Your task to perform on an android device: View the shopping cart on amazon.com. Add "acer predator" to the cart on amazon.com Image 0: 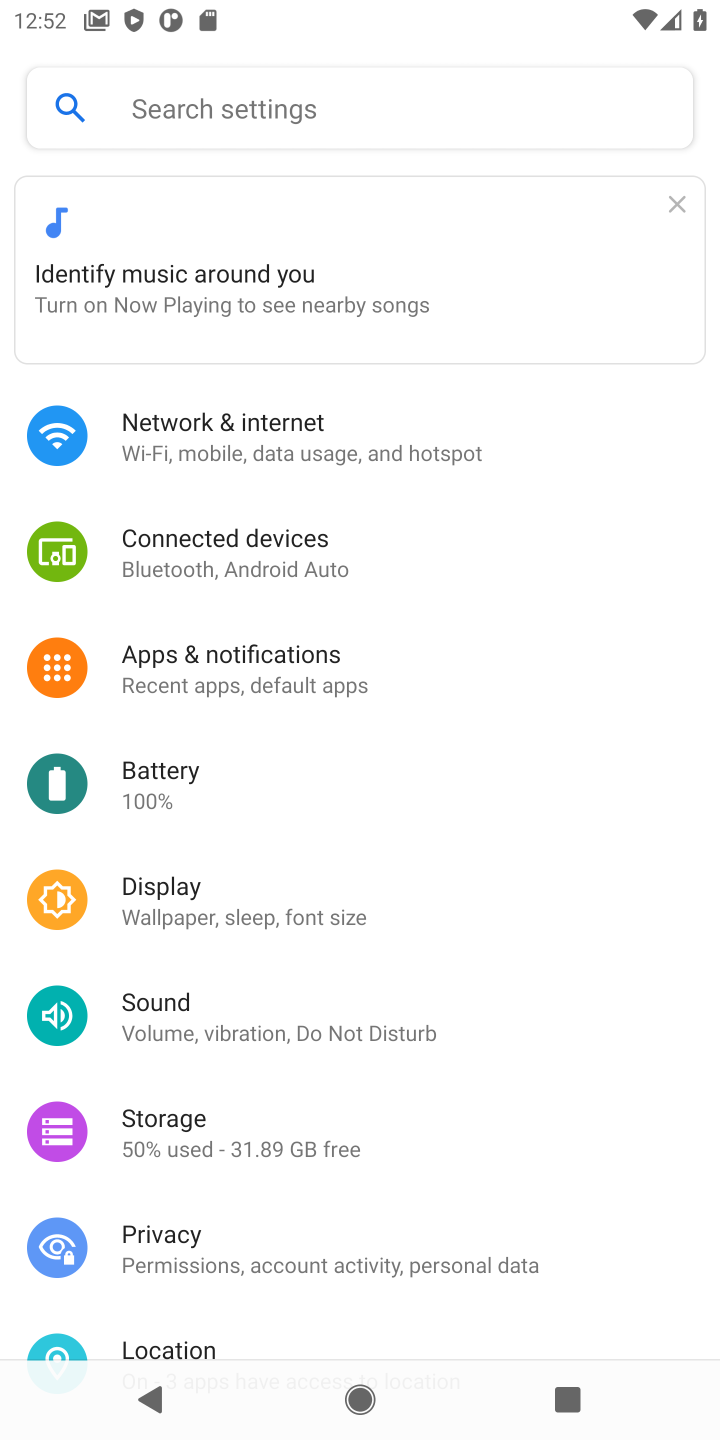
Step 0: press home button
Your task to perform on an android device: View the shopping cart on amazon.com. Add "acer predator" to the cart on amazon.com Image 1: 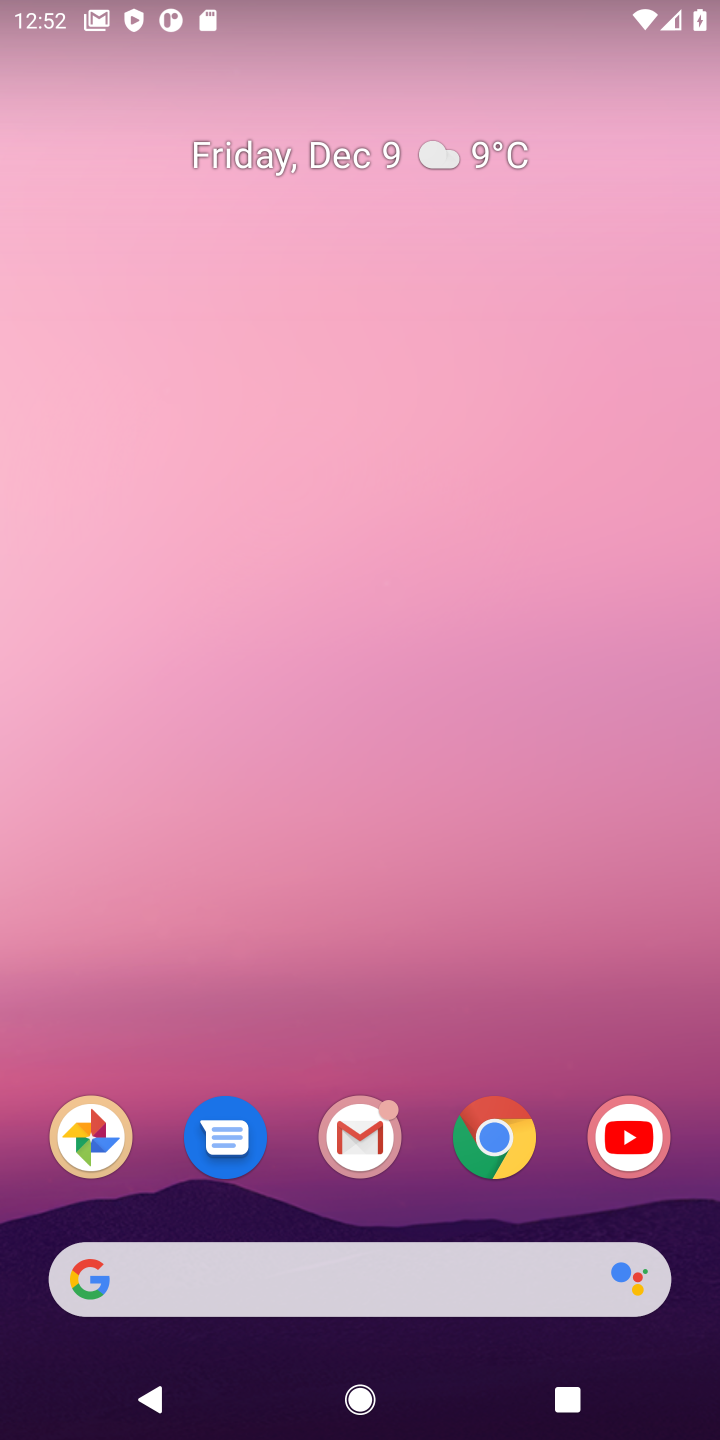
Step 1: click (445, 1274)
Your task to perform on an android device: View the shopping cart on amazon.com. Add "acer predator" to the cart on amazon.com Image 2: 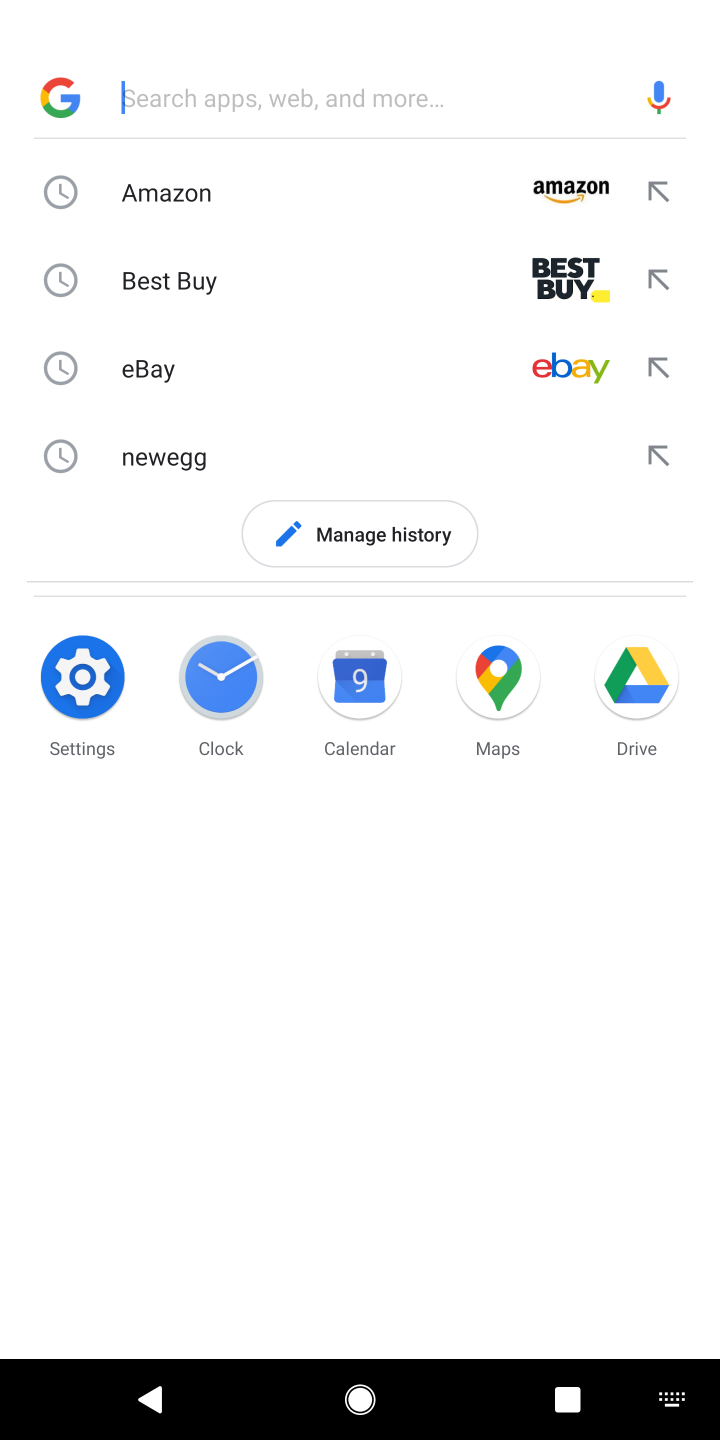
Step 2: type "amazon"
Your task to perform on an android device: View the shopping cart on amazon.com. Add "acer predator" to the cart on amazon.com Image 3: 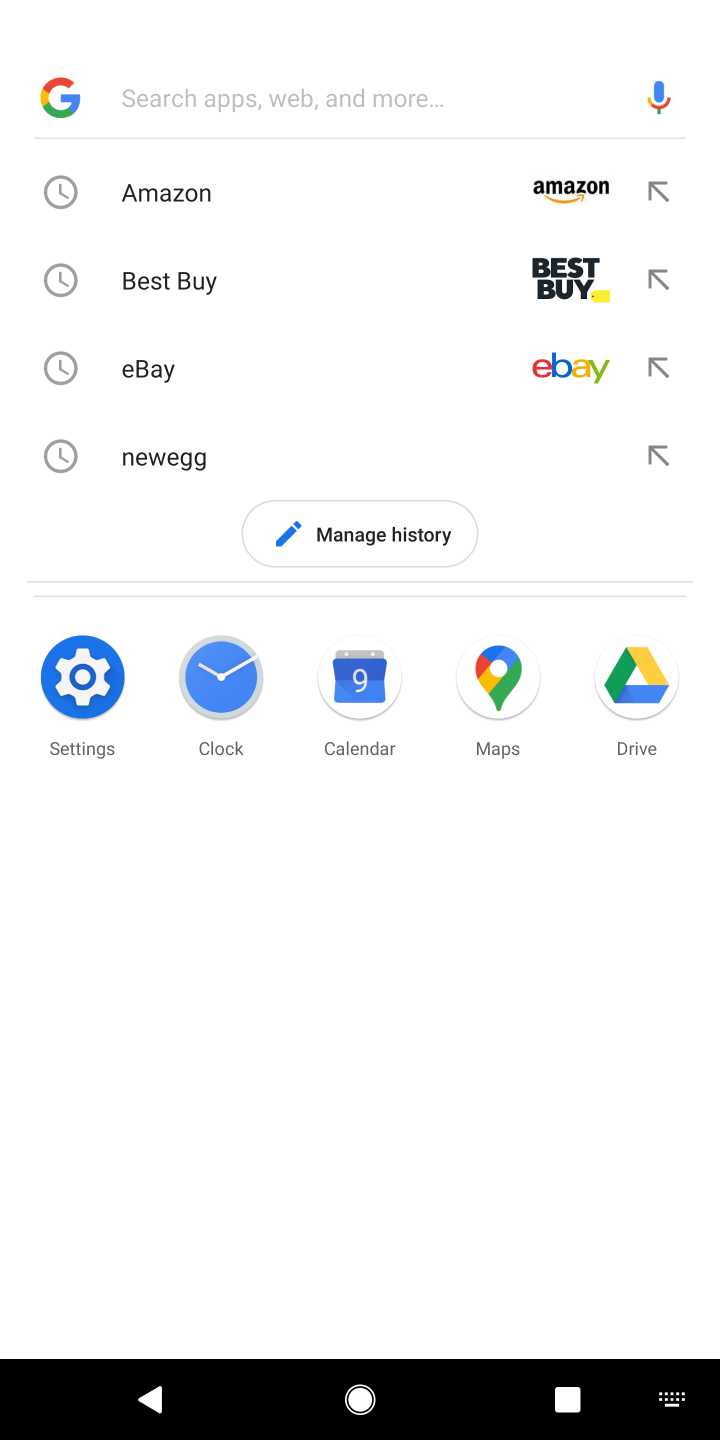
Step 3: click (286, 171)
Your task to perform on an android device: View the shopping cart on amazon.com. Add "acer predator" to the cart on amazon.com Image 4: 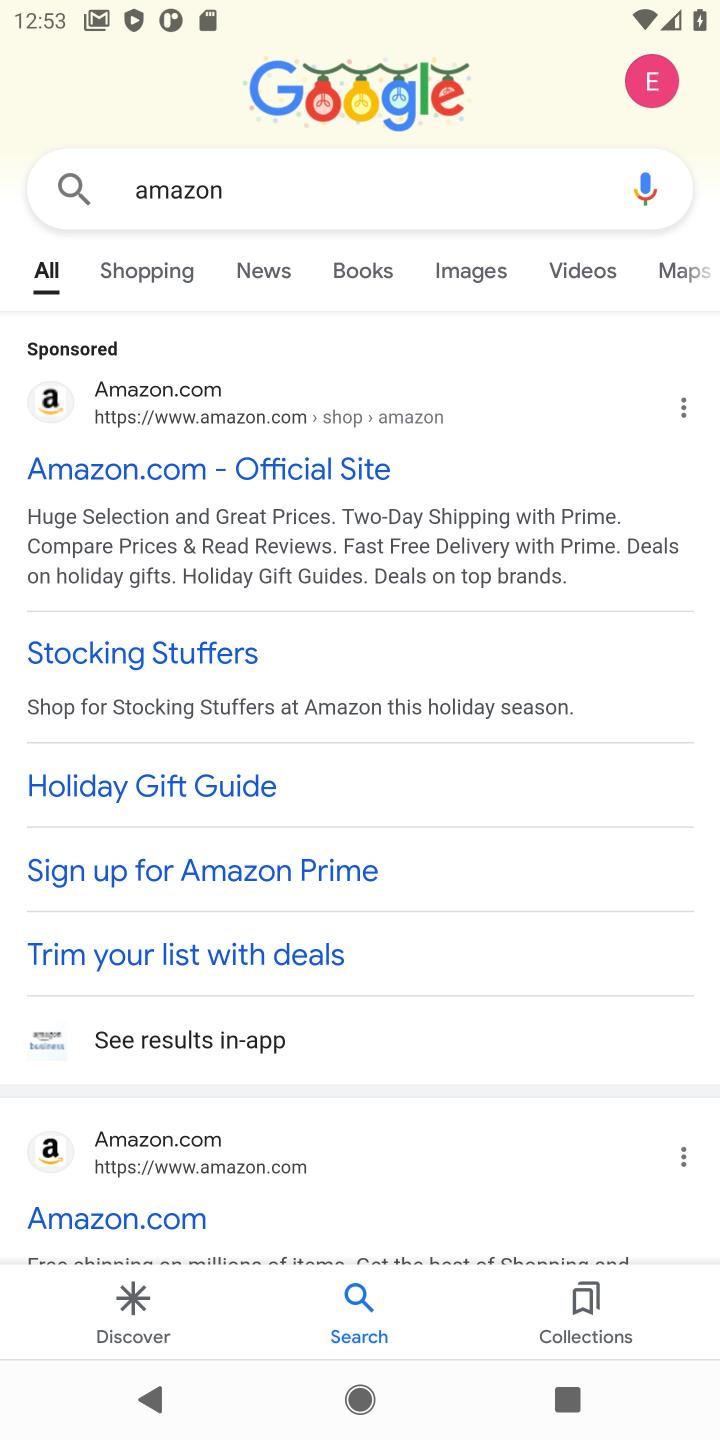
Step 4: click (53, 436)
Your task to perform on an android device: View the shopping cart on amazon.com. Add "acer predator" to the cart on amazon.com Image 5: 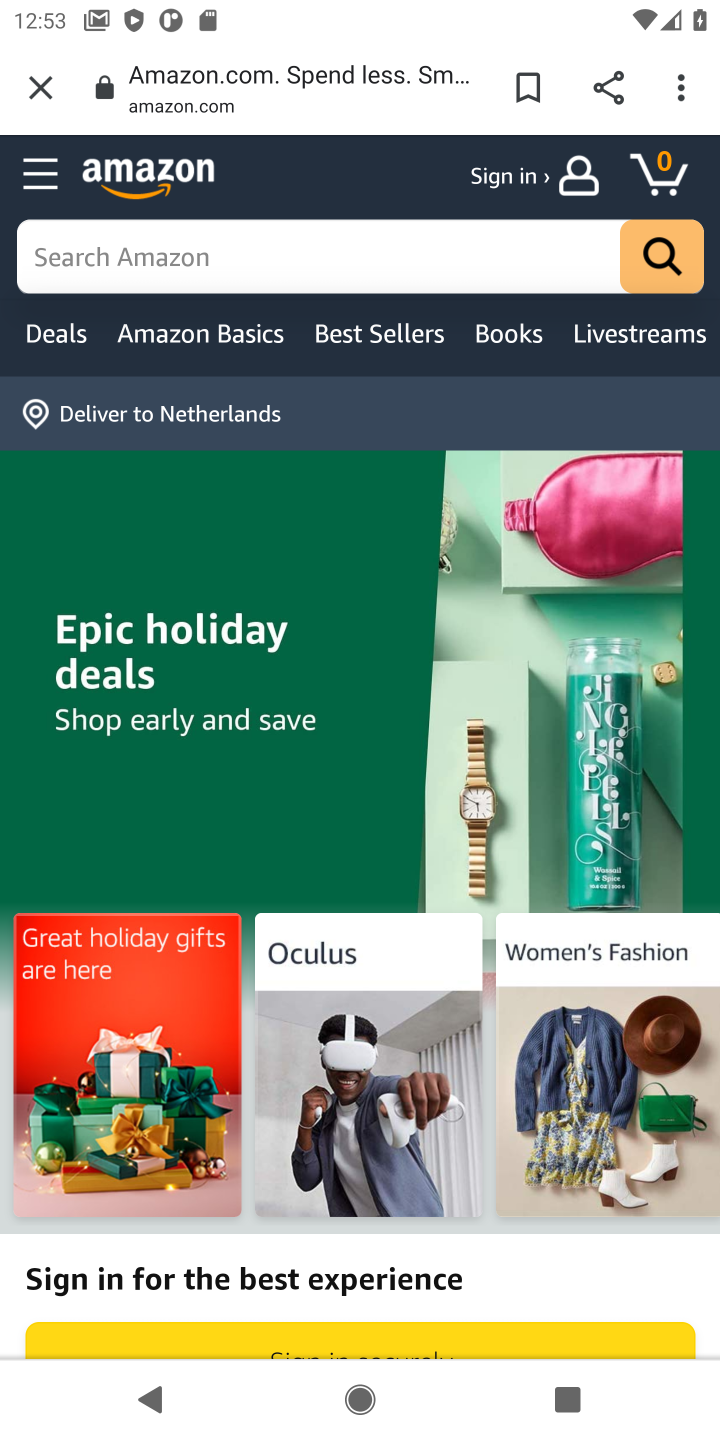
Step 5: click (94, 248)
Your task to perform on an android device: View the shopping cart on amazon.com. Add "acer predator" to the cart on amazon.com Image 6: 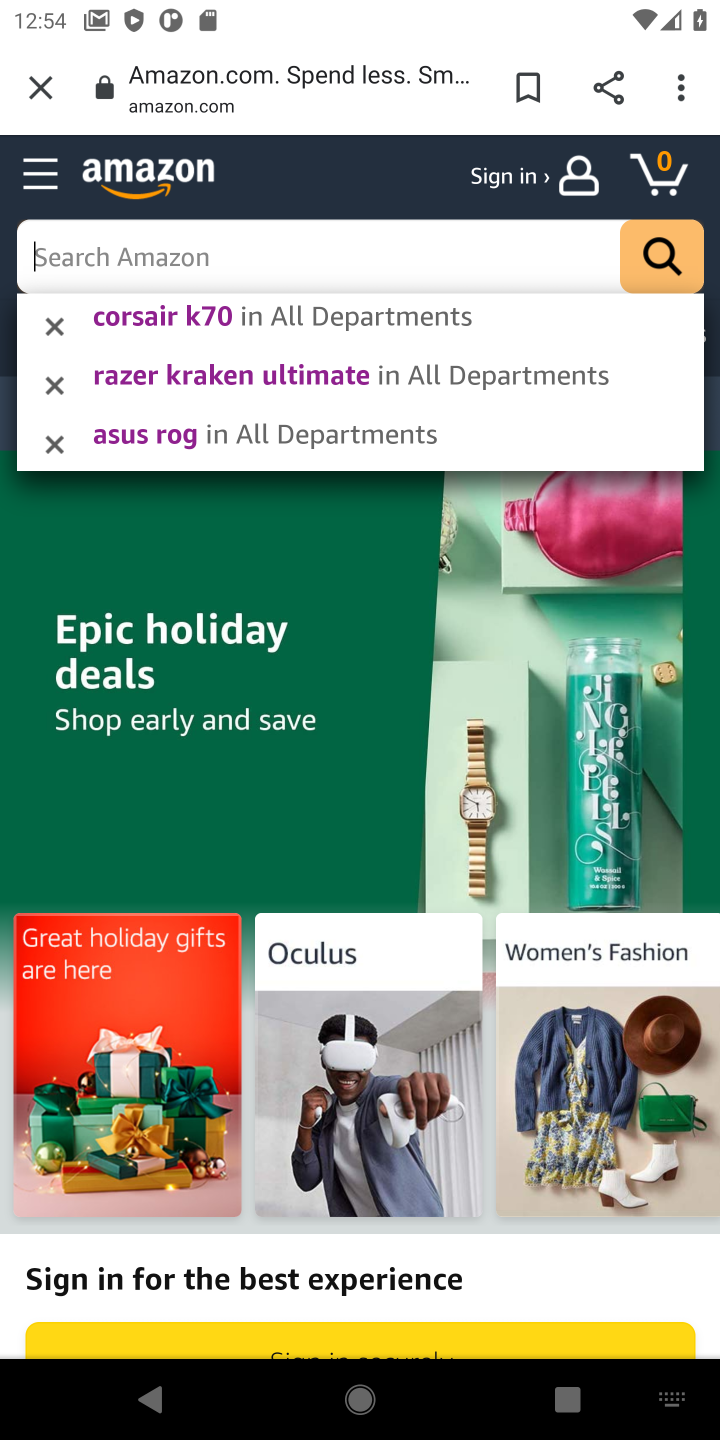
Step 6: type "acer predator"
Your task to perform on an android device: View the shopping cart on amazon.com. Add "acer predator" to the cart on amazon.com Image 7: 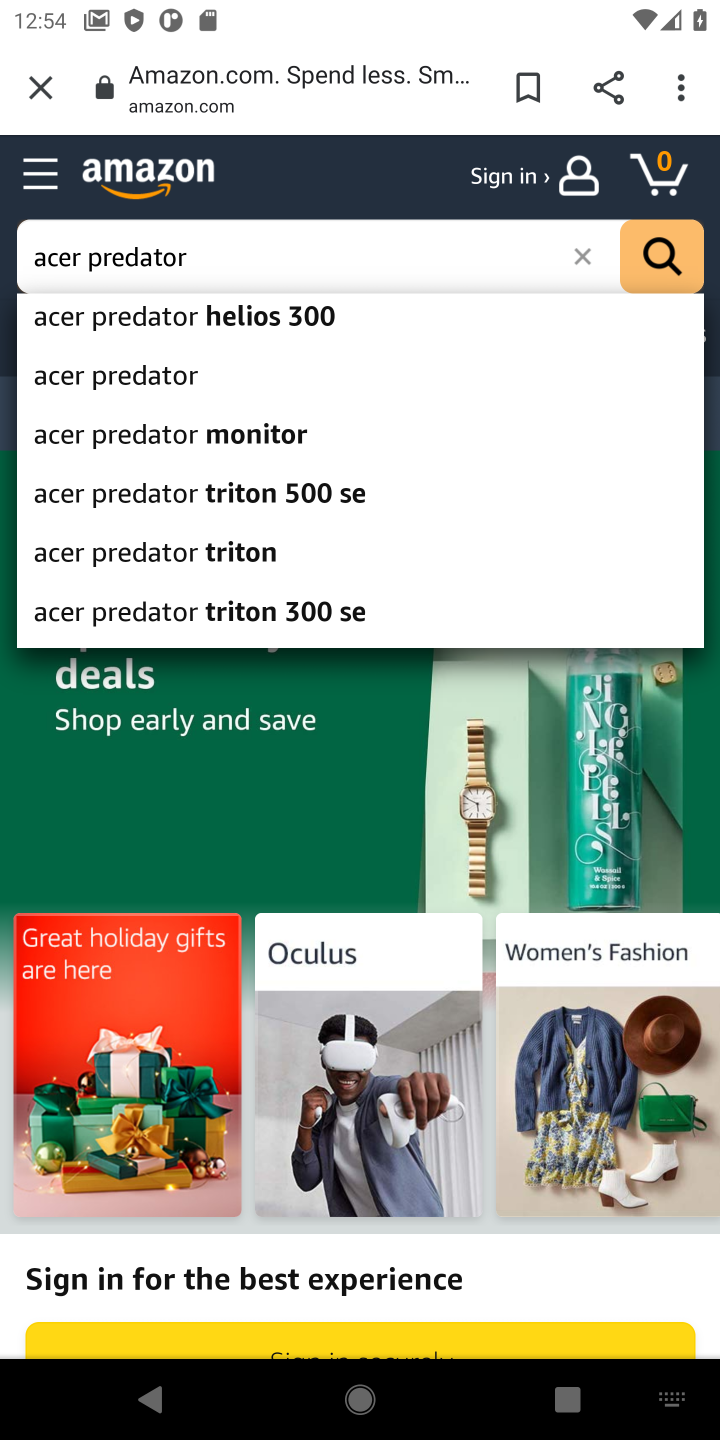
Step 7: click (124, 384)
Your task to perform on an android device: View the shopping cart on amazon.com. Add "acer predator" to the cart on amazon.com Image 8: 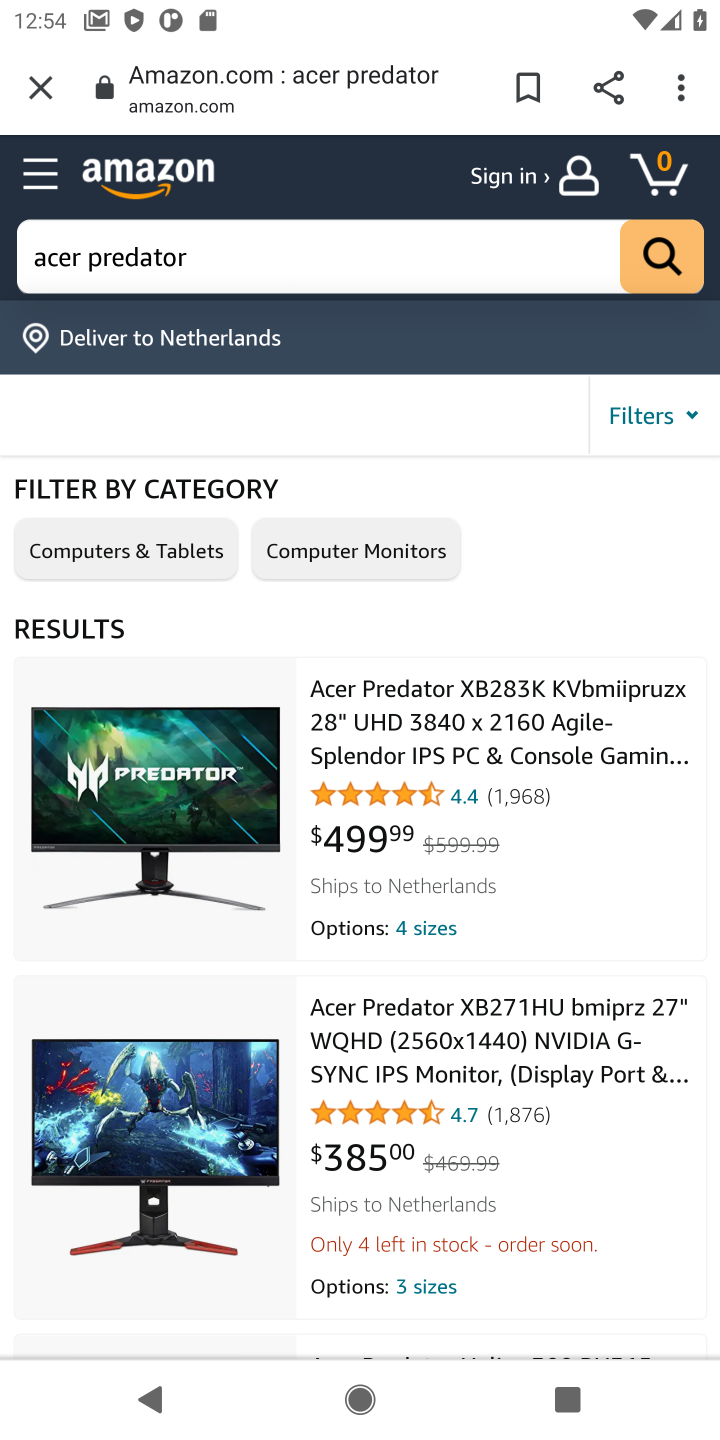
Step 8: click (419, 689)
Your task to perform on an android device: View the shopping cart on amazon.com. Add "acer predator" to the cart on amazon.com Image 9: 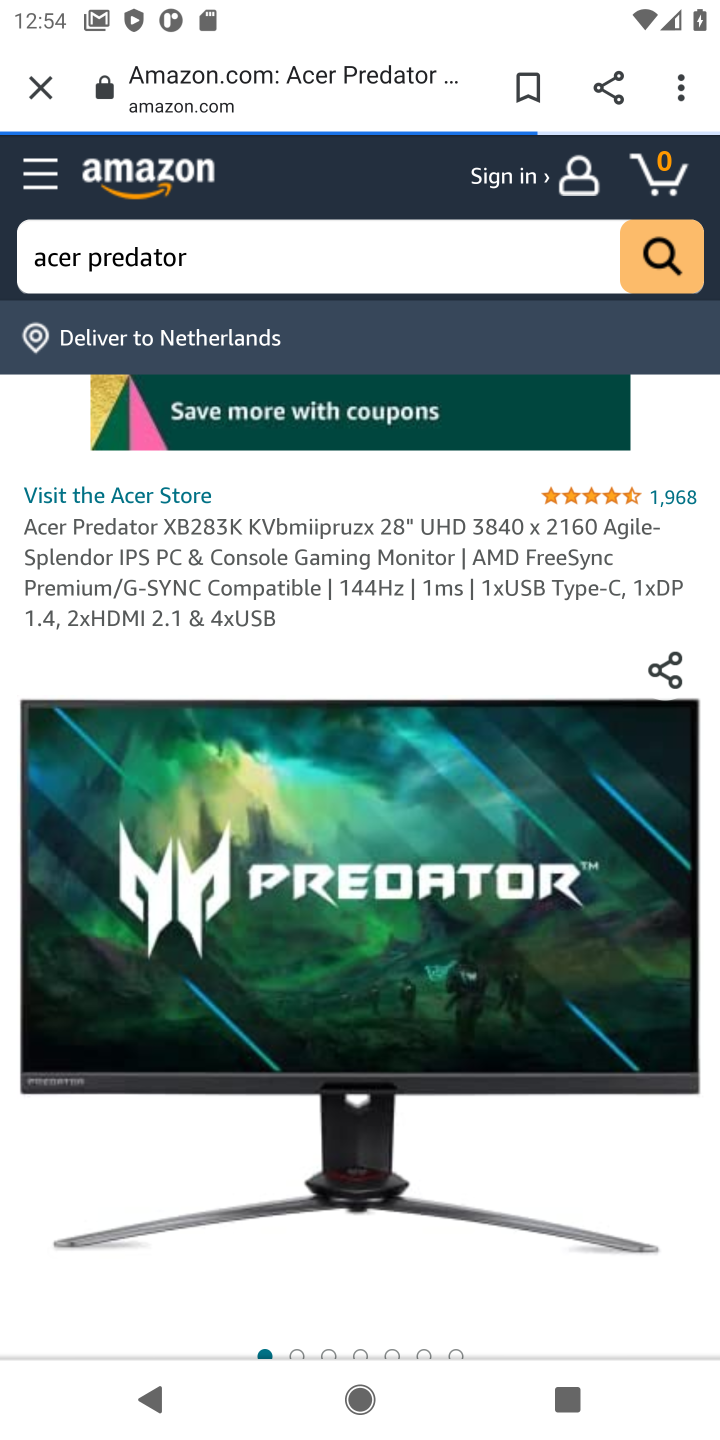
Step 9: drag from (357, 1116) to (380, 153)
Your task to perform on an android device: View the shopping cart on amazon.com. Add "acer predator" to the cart on amazon.com Image 10: 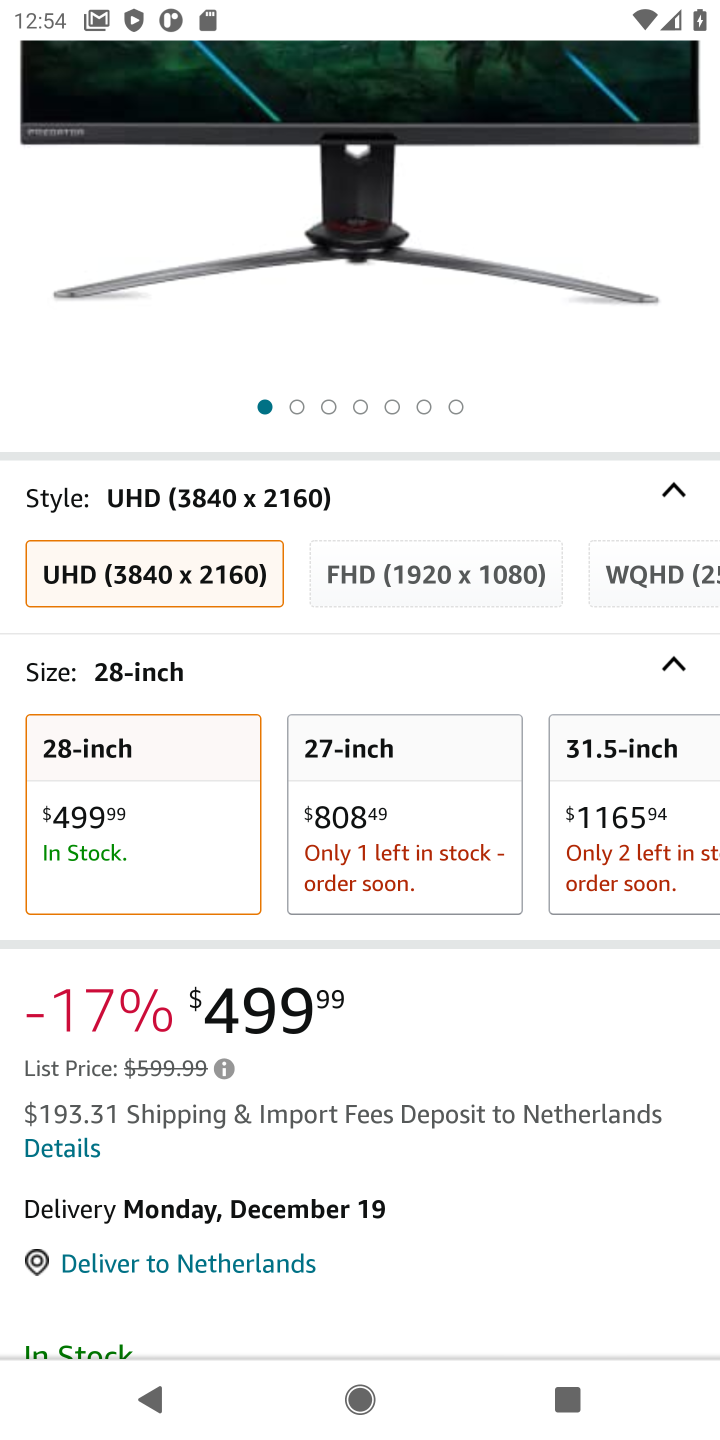
Step 10: drag from (435, 1147) to (403, 597)
Your task to perform on an android device: View the shopping cart on amazon.com. Add "acer predator" to the cart on amazon.com Image 11: 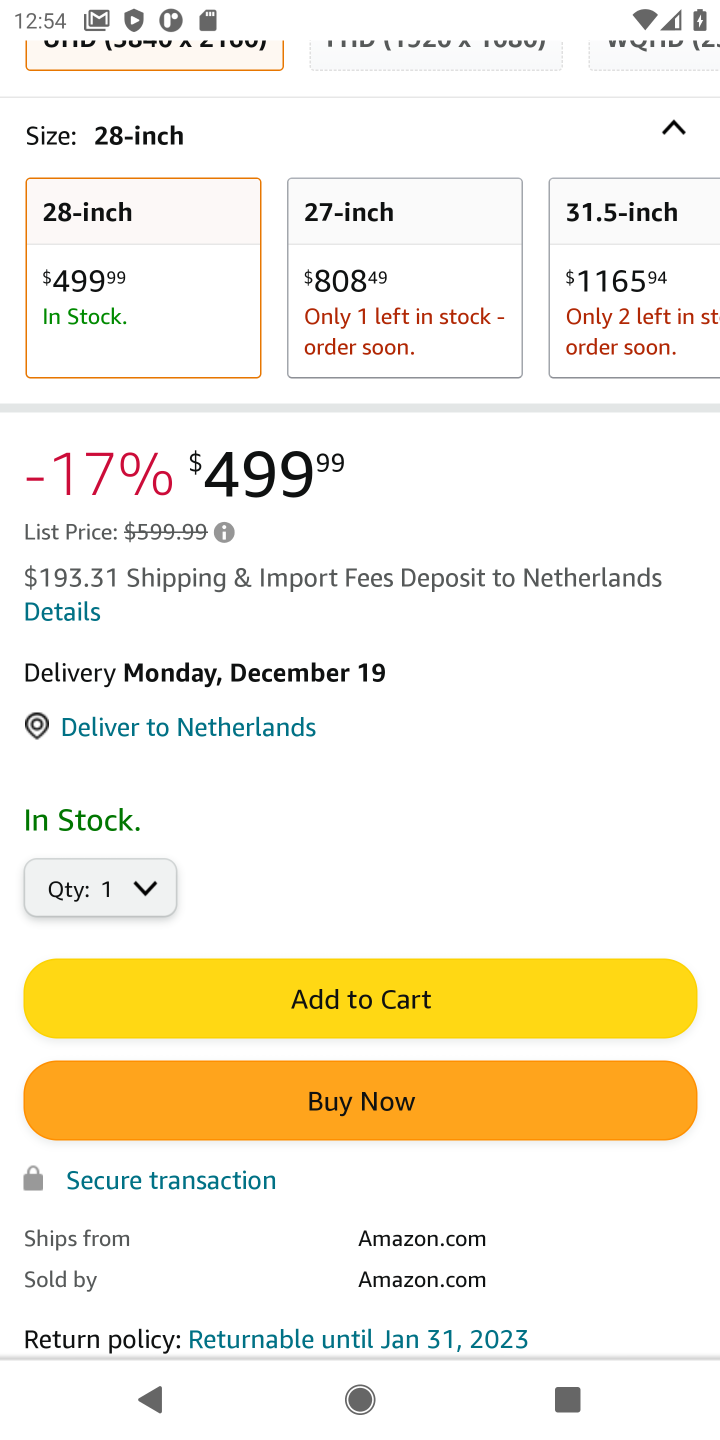
Step 11: click (441, 1123)
Your task to perform on an android device: View the shopping cart on amazon.com. Add "acer predator" to the cart on amazon.com Image 12: 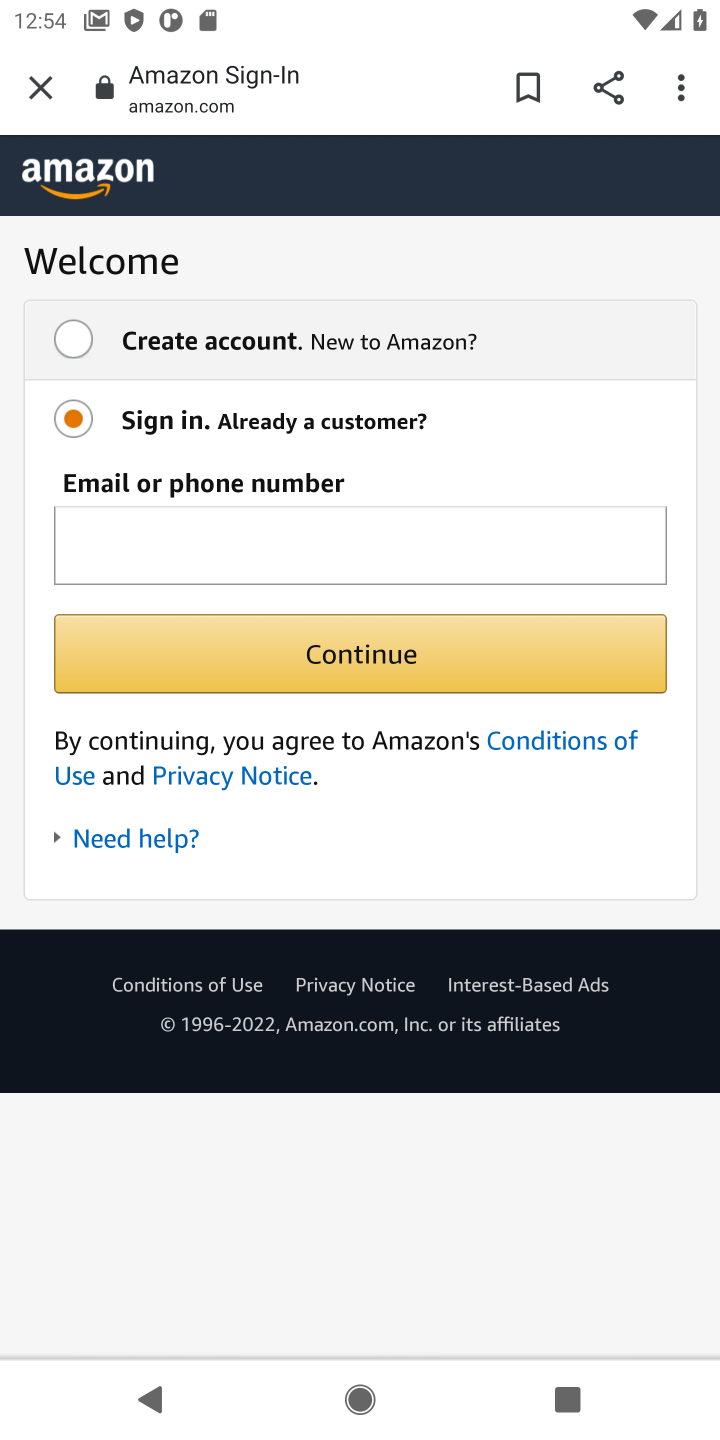
Step 12: task complete